Your task to perform on an android device: Search for razer blackwidow on walmart, select the first entry, add it to the cart, then select checkout. Image 0: 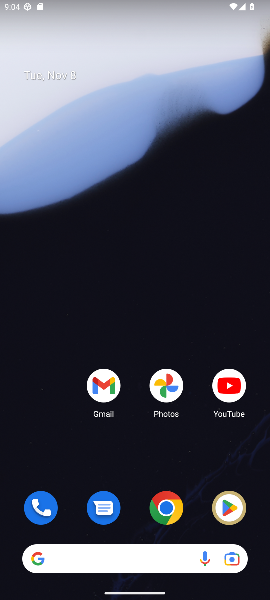
Step 0: click (165, 501)
Your task to perform on an android device: Search for razer blackwidow on walmart, select the first entry, add it to the cart, then select checkout. Image 1: 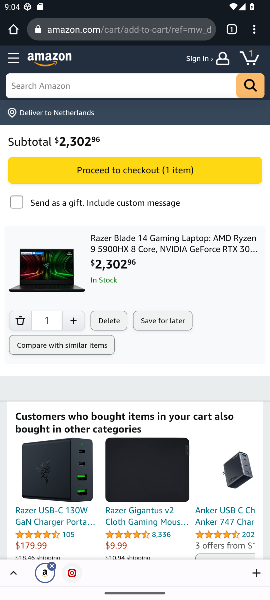
Step 1: click (64, 29)
Your task to perform on an android device: Search for razer blackwidow on walmart, select the first entry, add it to the cart, then select checkout. Image 2: 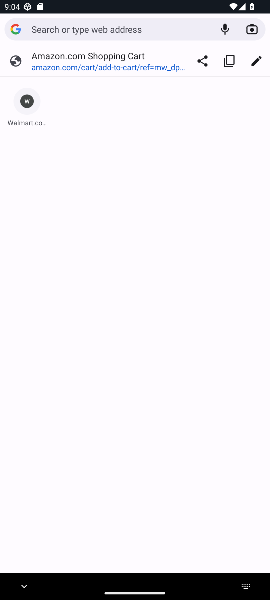
Step 2: type "walmart"
Your task to perform on an android device: Search for razer blackwidow on walmart, select the first entry, add it to the cart, then select checkout. Image 3: 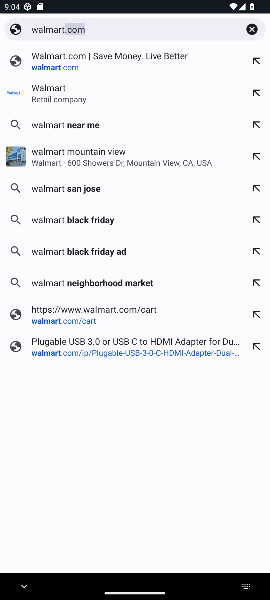
Step 3: click (53, 91)
Your task to perform on an android device: Search for razer blackwidow on walmart, select the first entry, add it to the cart, then select checkout. Image 4: 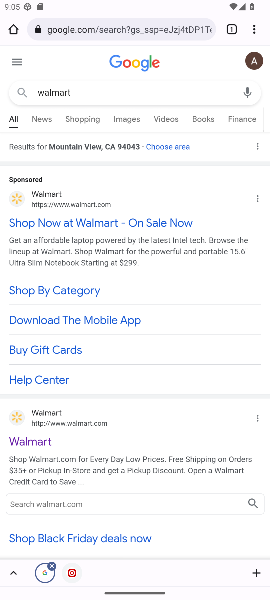
Step 4: click (34, 440)
Your task to perform on an android device: Search for razer blackwidow on walmart, select the first entry, add it to the cart, then select checkout. Image 5: 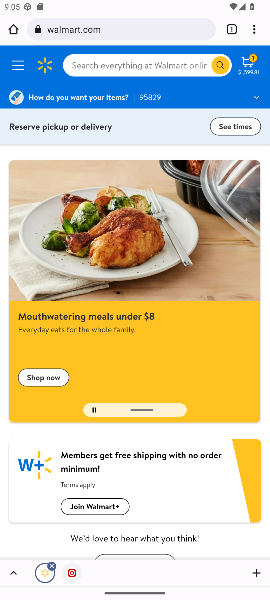
Step 5: click (118, 63)
Your task to perform on an android device: Search for razer blackwidow on walmart, select the first entry, add it to the cart, then select checkout. Image 6: 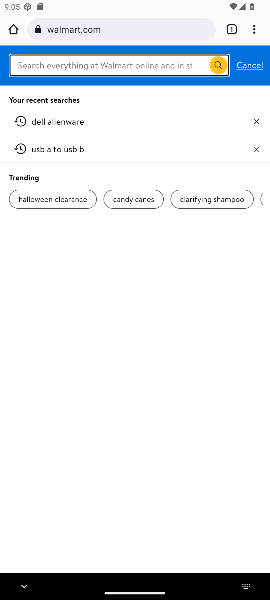
Step 6: type "razer blackwidow"
Your task to perform on an android device: Search for razer blackwidow on walmart, select the first entry, add it to the cart, then select checkout. Image 7: 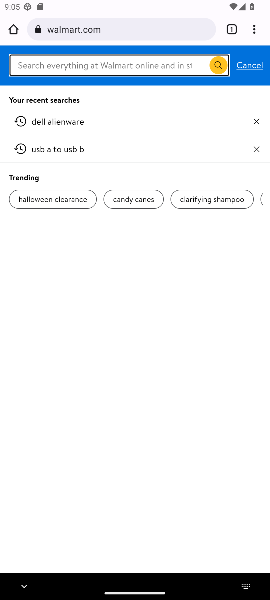
Step 7: type ""
Your task to perform on an android device: Search for razer blackwidow on walmart, select the first entry, add it to the cart, then select checkout. Image 8: 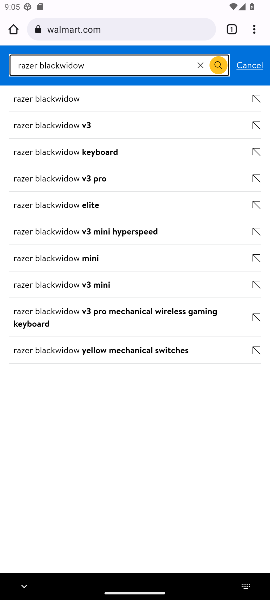
Step 8: click (64, 93)
Your task to perform on an android device: Search for razer blackwidow on walmart, select the first entry, add it to the cart, then select checkout. Image 9: 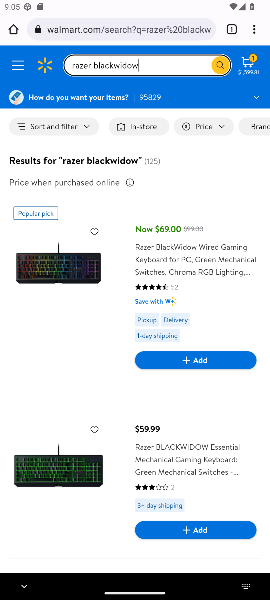
Step 9: click (187, 258)
Your task to perform on an android device: Search for razer blackwidow on walmart, select the first entry, add it to the cart, then select checkout. Image 10: 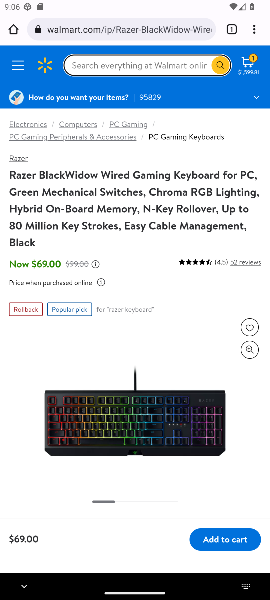
Step 10: click (224, 542)
Your task to perform on an android device: Search for razer blackwidow on walmart, select the first entry, add it to the cart, then select checkout. Image 11: 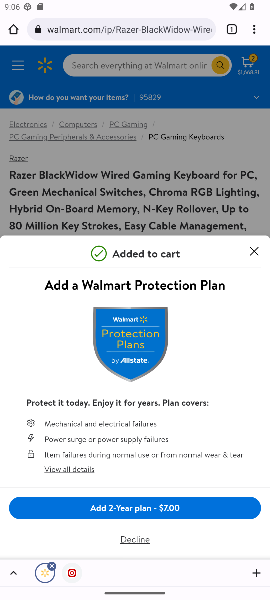
Step 11: click (251, 247)
Your task to perform on an android device: Search for razer blackwidow on walmart, select the first entry, add it to the cart, then select checkout. Image 12: 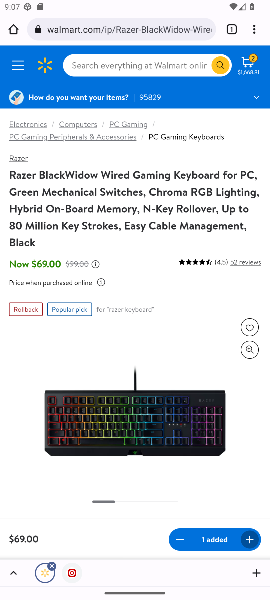
Step 12: drag from (133, 486) to (169, 472)
Your task to perform on an android device: Search for razer blackwidow on walmart, select the first entry, add it to the cart, then select checkout. Image 13: 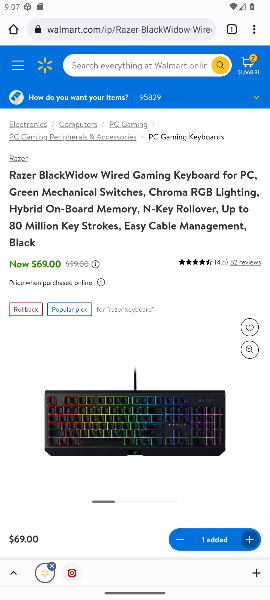
Step 13: click (254, 64)
Your task to perform on an android device: Search for razer blackwidow on walmart, select the first entry, add it to the cart, then select checkout. Image 14: 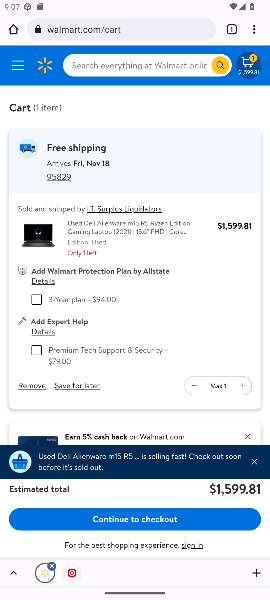
Step 14: click (153, 521)
Your task to perform on an android device: Search for razer blackwidow on walmart, select the first entry, add it to the cart, then select checkout. Image 15: 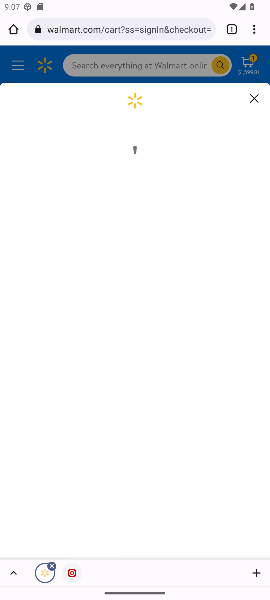
Step 15: task complete